Your task to perform on an android device: Go to eBay Image 0: 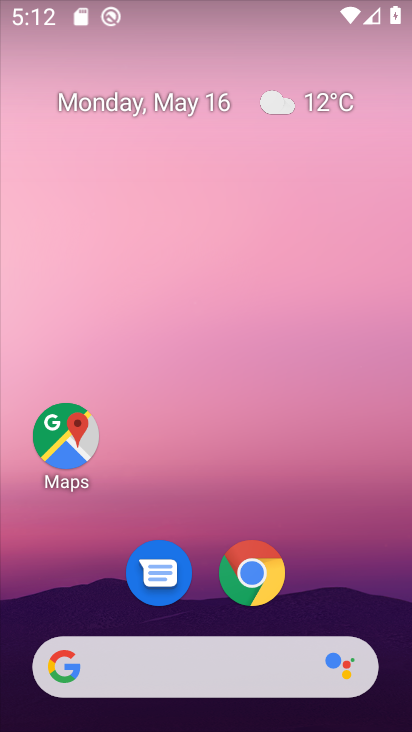
Step 0: click (257, 562)
Your task to perform on an android device: Go to eBay Image 1: 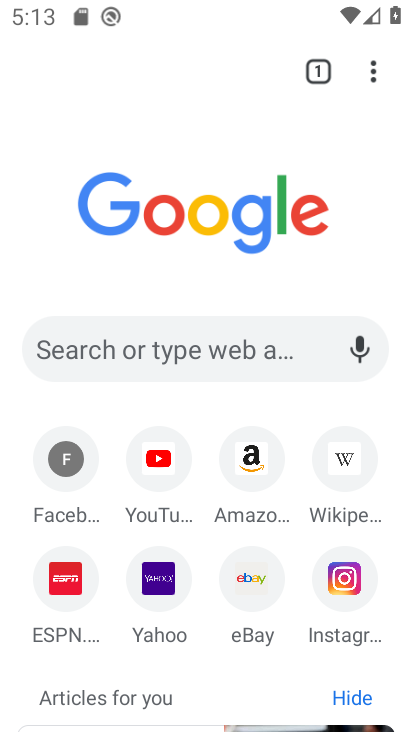
Step 1: click (214, 345)
Your task to perform on an android device: Go to eBay Image 2: 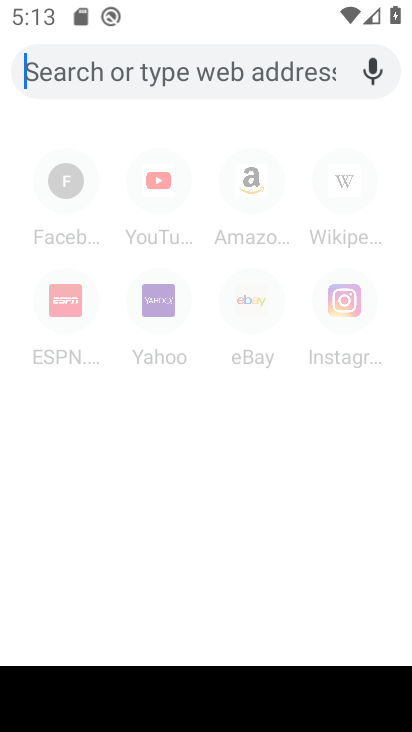
Step 2: click (249, 298)
Your task to perform on an android device: Go to eBay Image 3: 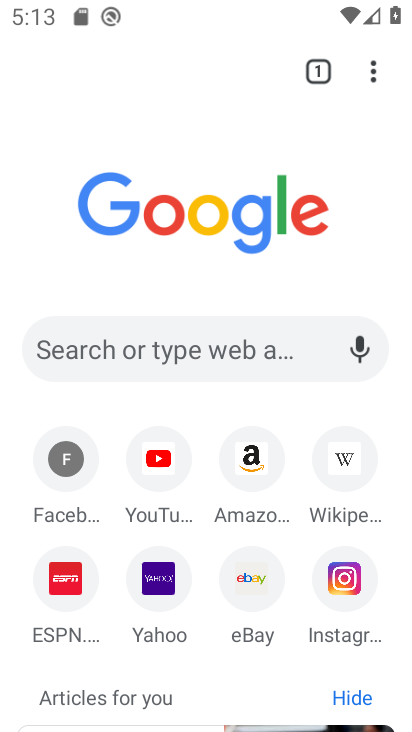
Step 3: click (261, 612)
Your task to perform on an android device: Go to eBay Image 4: 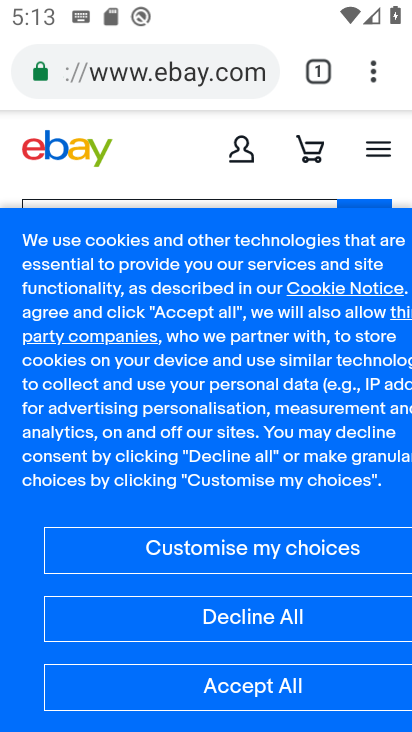
Step 4: task complete